Your task to perform on an android device: Open privacy settings Image 0: 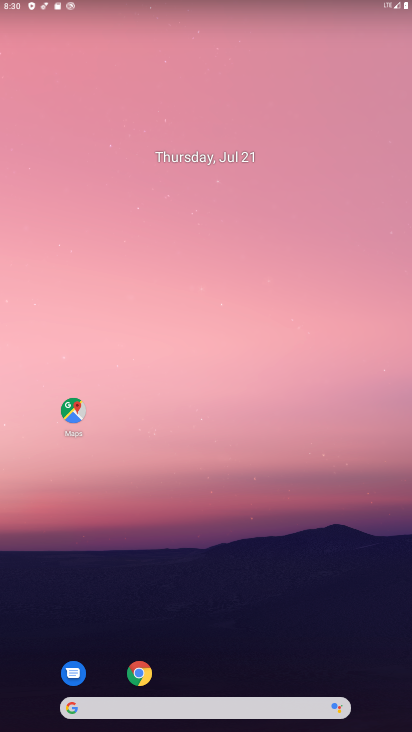
Step 0: drag from (208, 655) to (193, 121)
Your task to perform on an android device: Open privacy settings Image 1: 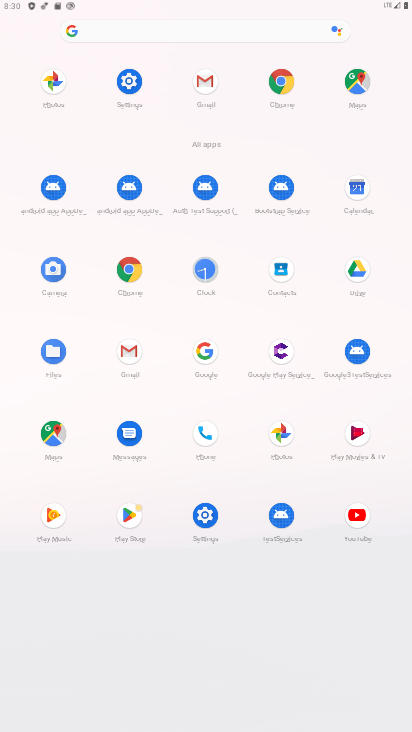
Step 1: click (130, 88)
Your task to perform on an android device: Open privacy settings Image 2: 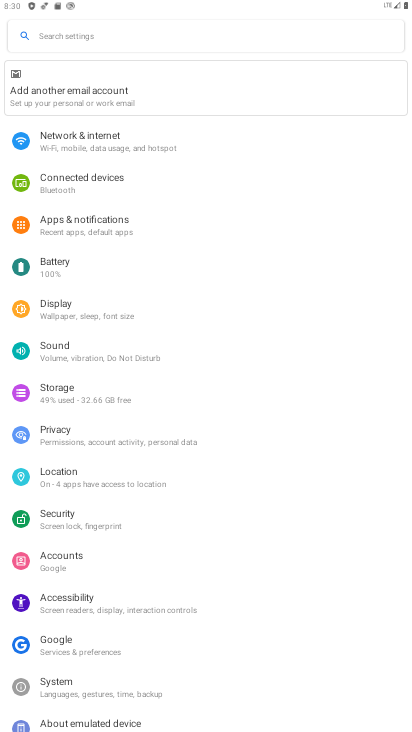
Step 2: click (83, 443)
Your task to perform on an android device: Open privacy settings Image 3: 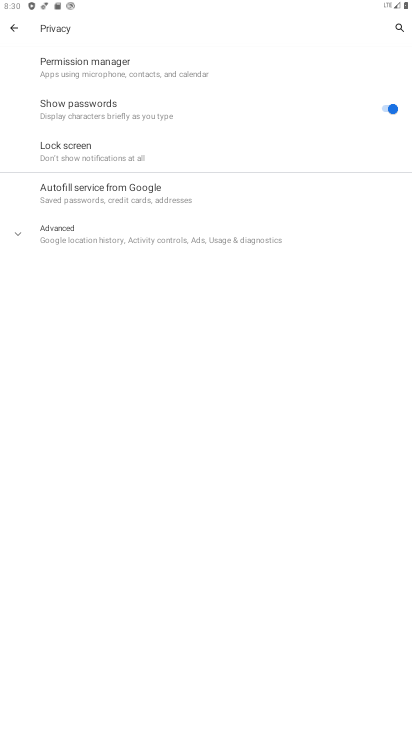
Step 3: task complete